Your task to perform on an android device: turn on wifi Image 0: 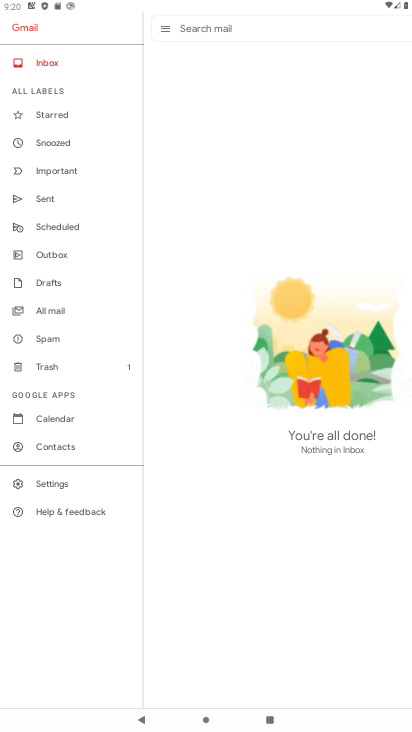
Step 0: press home button
Your task to perform on an android device: turn on wifi Image 1: 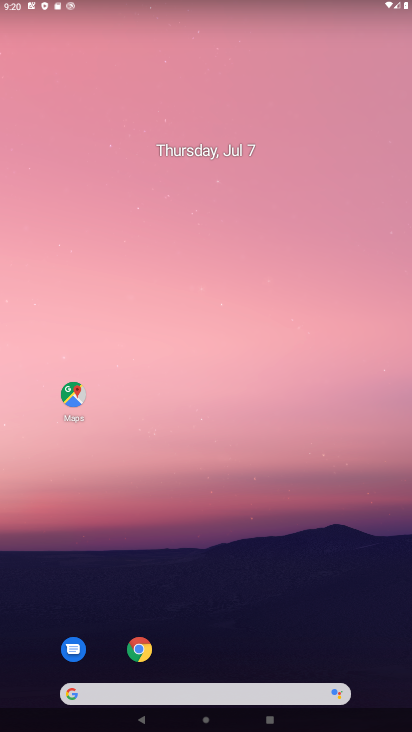
Step 1: drag from (229, 721) to (176, 119)
Your task to perform on an android device: turn on wifi Image 2: 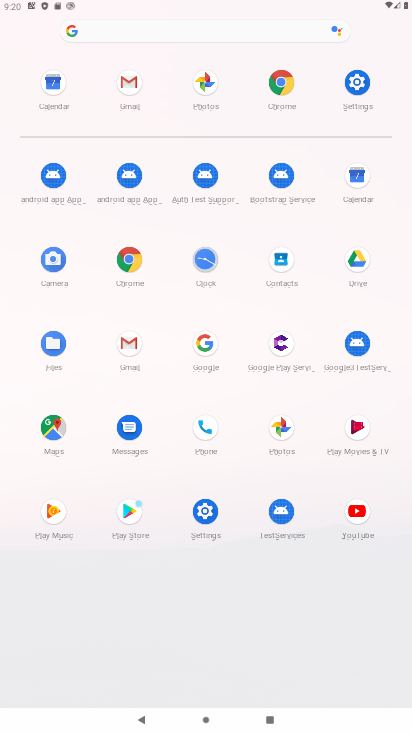
Step 2: click (355, 79)
Your task to perform on an android device: turn on wifi Image 3: 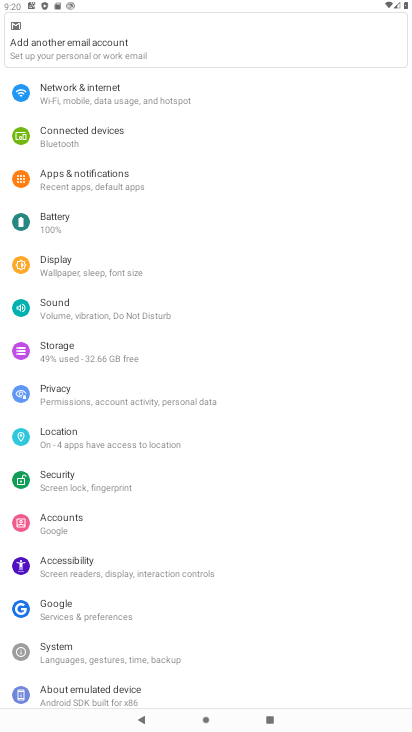
Step 3: click (83, 106)
Your task to perform on an android device: turn on wifi Image 4: 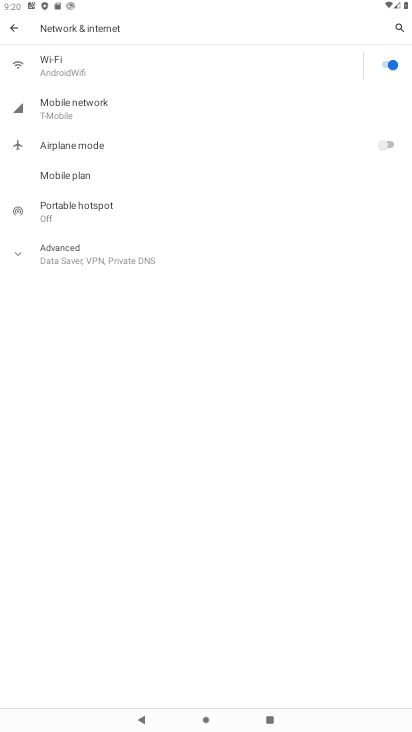
Step 4: task complete